Your task to perform on an android device: change notification settings in the gmail app Image 0: 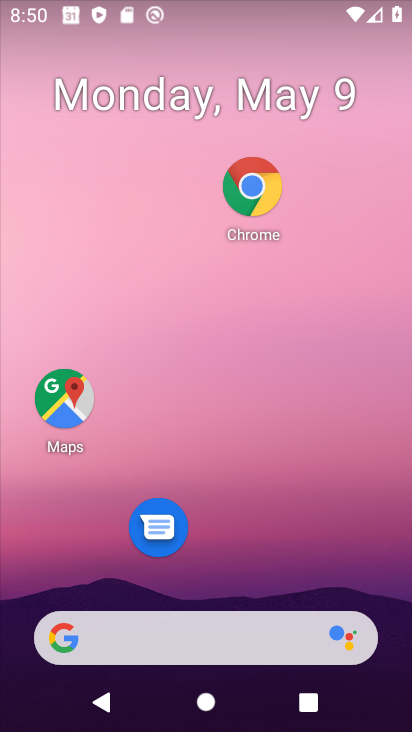
Step 0: drag from (231, 584) to (272, 0)
Your task to perform on an android device: change notification settings in the gmail app Image 1: 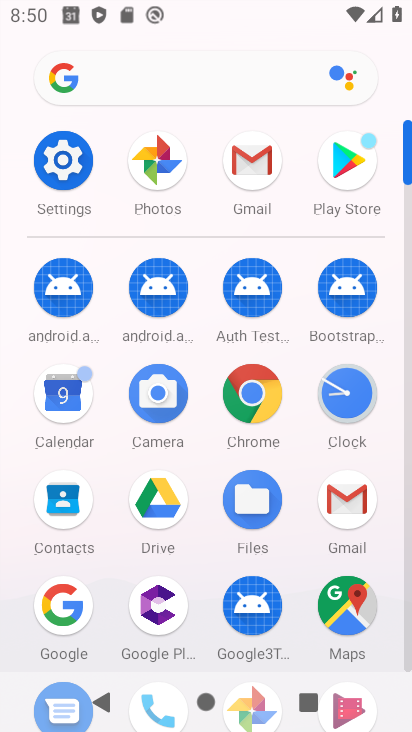
Step 1: click (242, 150)
Your task to perform on an android device: change notification settings in the gmail app Image 2: 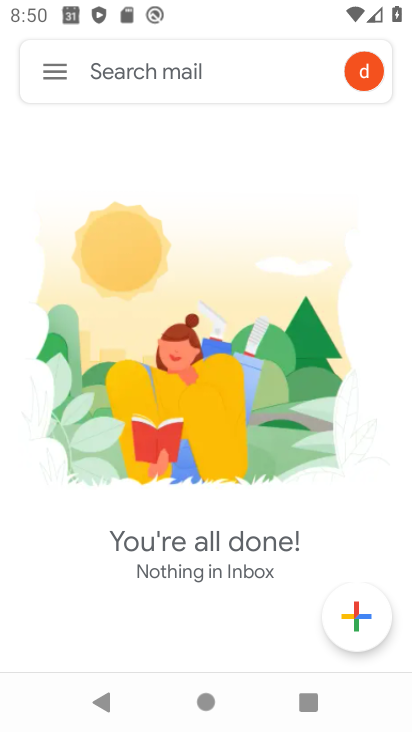
Step 2: click (46, 73)
Your task to perform on an android device: change notification settings in the gmail app Image 3: 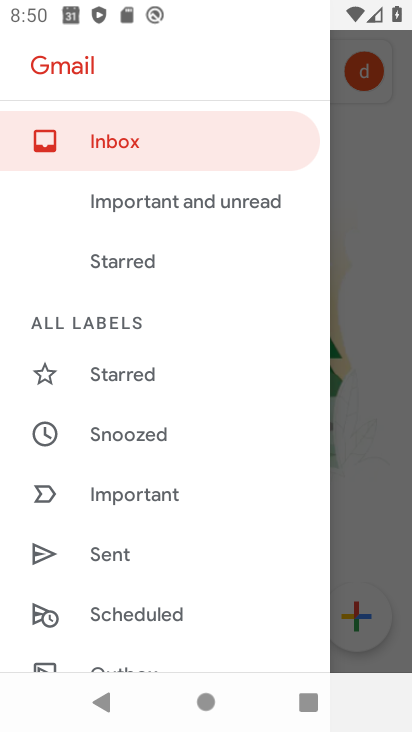
Step 3: drag from (139, 605) to (177, 82)
Your task to perform on an android device: change notification settings in the gmail app Image 4: 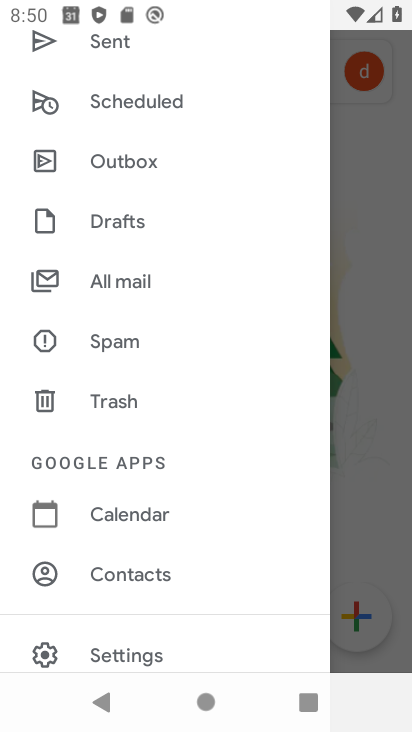
Step 4: click (131, 657)
Your task to perform on an android device: change notification settings in the gmail app Image 5: 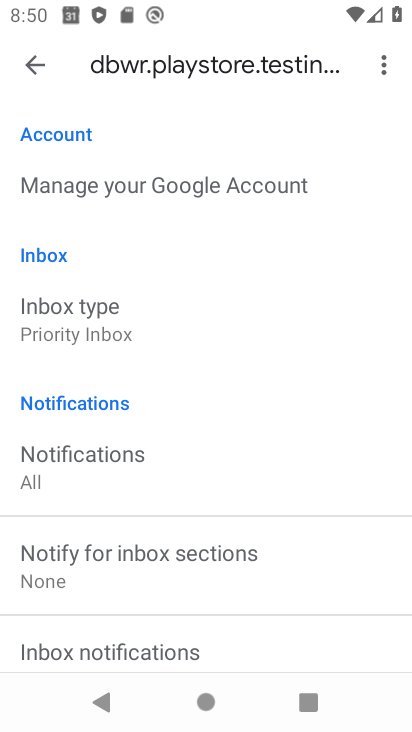
Step 5: drag from (207, 625) to (286, 38)
Your task to perform on an android device: change notification settings in the gmail app Image 6: 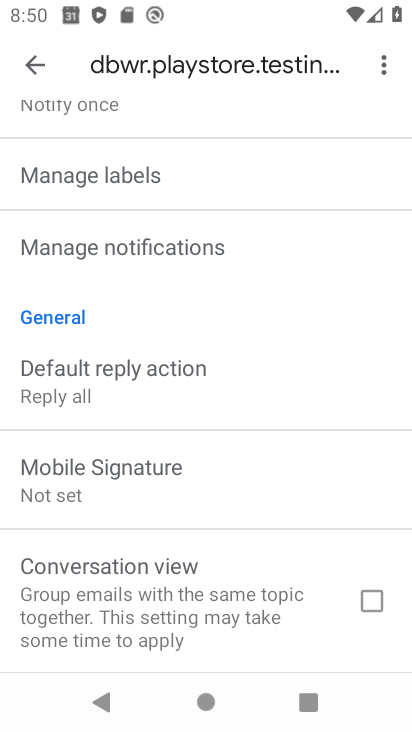
Step 6: click (33, 72)
Your task to perform on an android device: change notification settings in the gmail app Image 7: 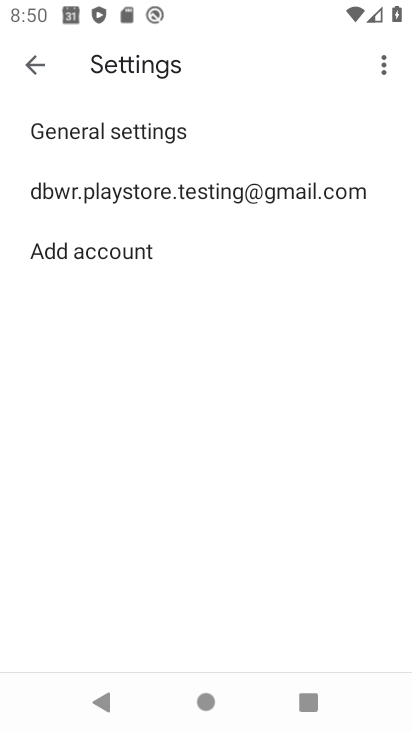
Step 7: click (132, 129)
Your task to perform on an android device: change notification settings in the gmail app Image 8: 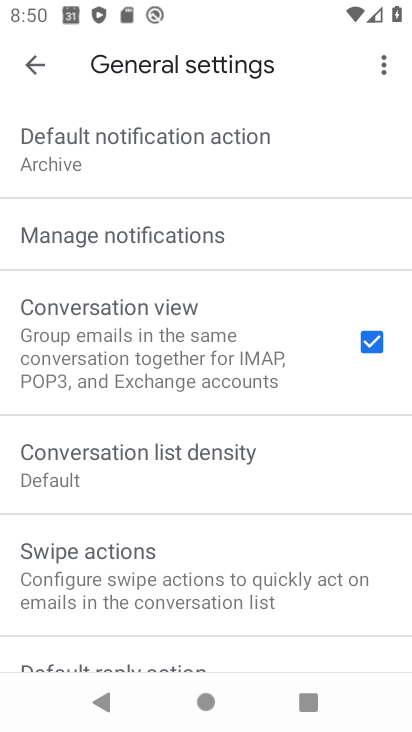
Step 8: click (230, 227)
Your task to perform on an android device: change notification settings in the gmail app Image 9: 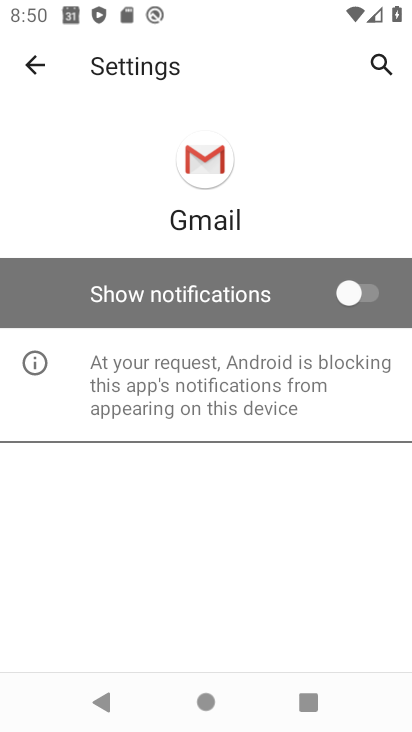
Step 9: click (362, 280)
Your task to perform on an android device: change notification settings in the gmail app Image 10: 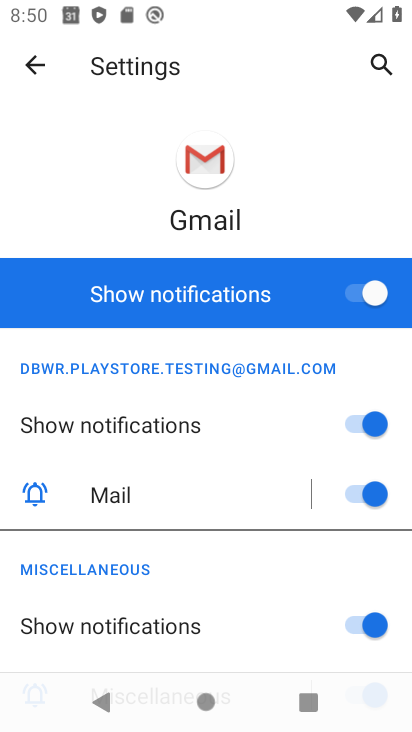
Step 10: task complete